Your task to perform on an android device: turn on wifi Image 0: 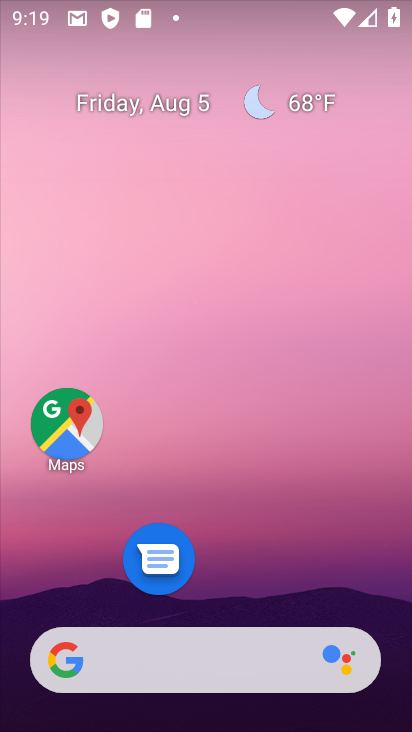
Step 0: drag from (272, 612) to (317, 187)
Your task to perform on an android device: turn on wifi Image 1: 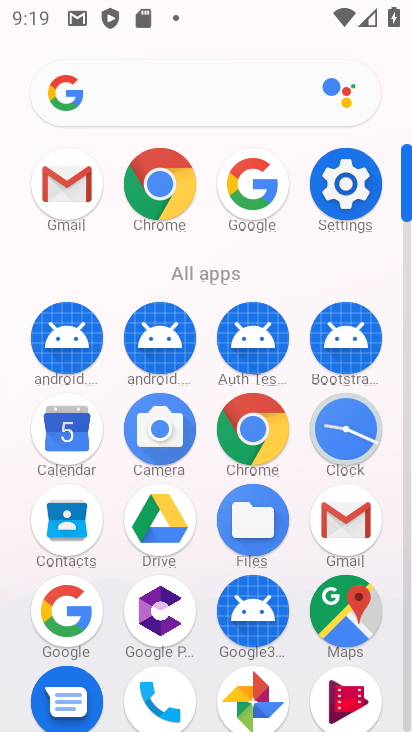
Step 1: click (355, 190)
Your task to perform on an android device: turn on wifi Image 2: 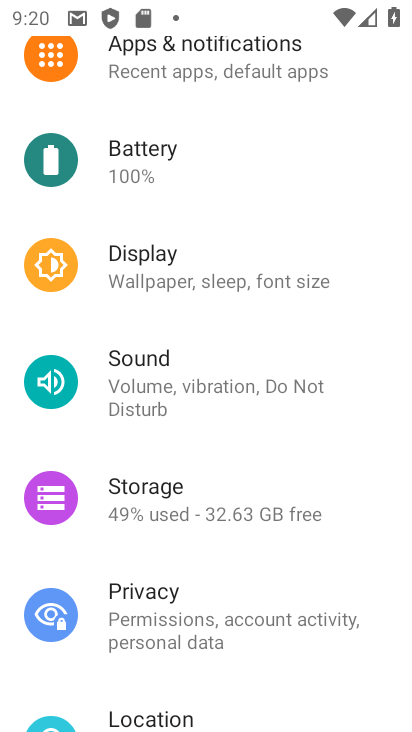
Step 2: drag from (251, 358) to (169, 715)
Your task to perform on an android device: turn on wifi Image 3: 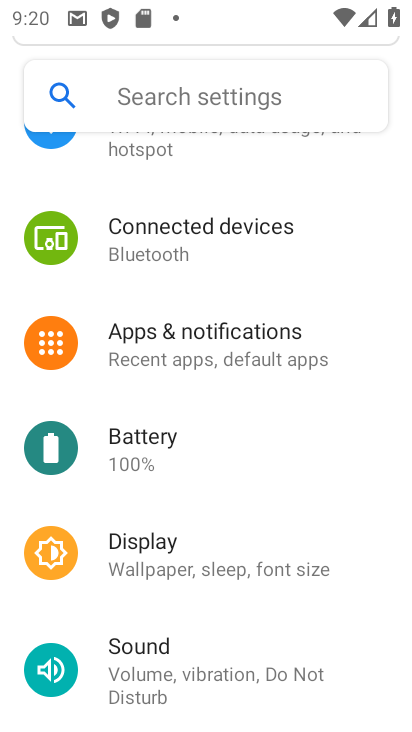
Step 3: drag from (192, 398) to (138, 722)
Your task to perform on an android device: turn on wifi Image 4: 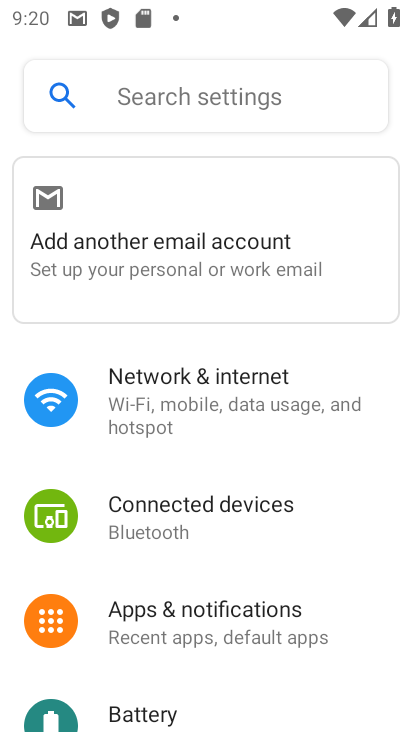
Step 4: click (195, 374)
Your task to perform on an android device: turn on wifi Image 5: 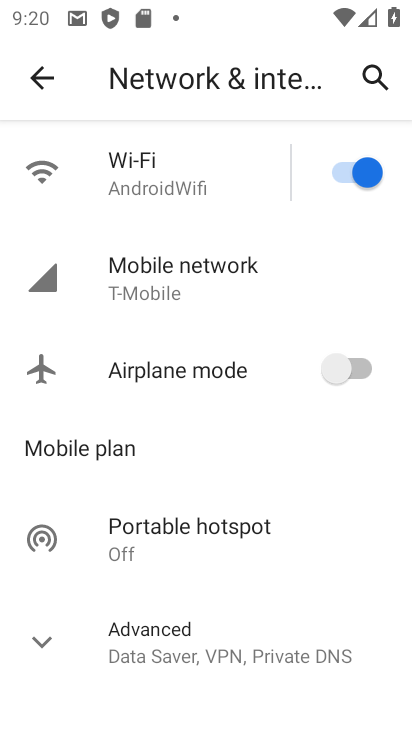
Step 5: task complete